Your task to perform on an android device: turn on wifi Image 0: 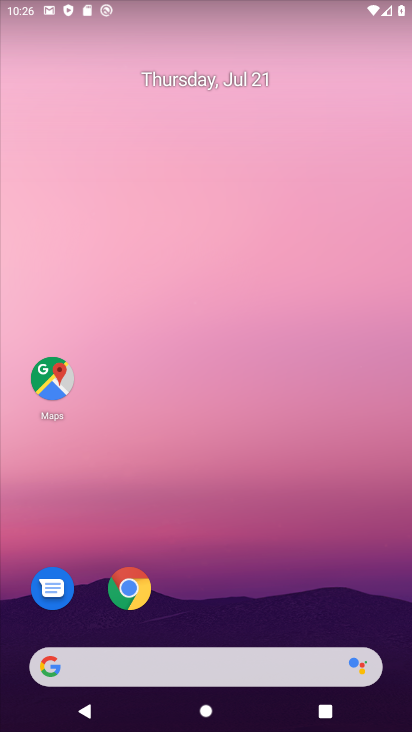
Step 0: drag from (208, 590) to (245, 73)
Your task to perform on an android device: turn on wifi Image 1: 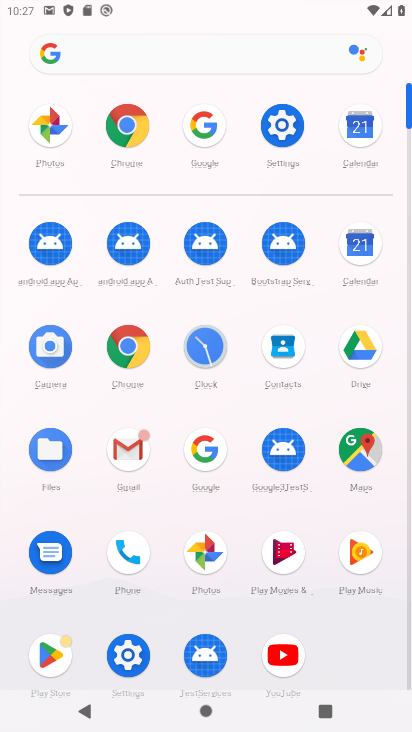
Step 1: click (273, 124)
Your task to perform on an android device: turn on wifi Image 2: 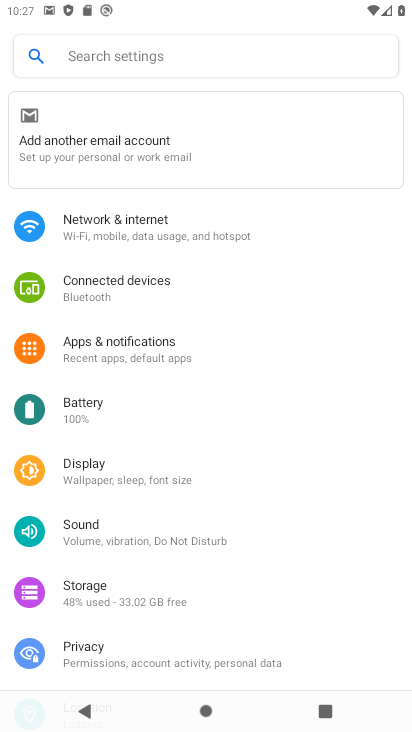
Step 2: click (172, 218)
Your task to perform on an android device: turn on wifi Image 3: 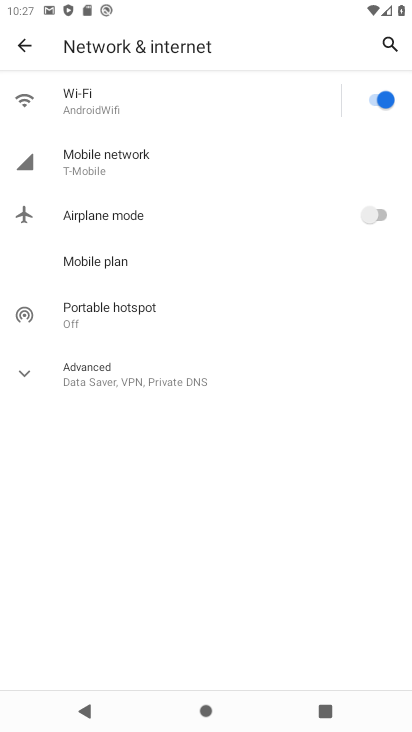
Step 3: click (114, 113)
Your task to perform on an android device: turn on wifi Image 4: 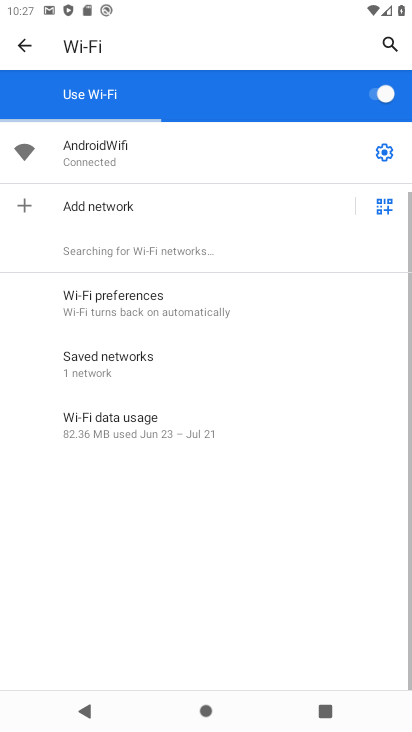
Step 4: task complete